Your task to perform on an android device: Open Google Chrome and click the shortcut for Amazon.com Image 0: 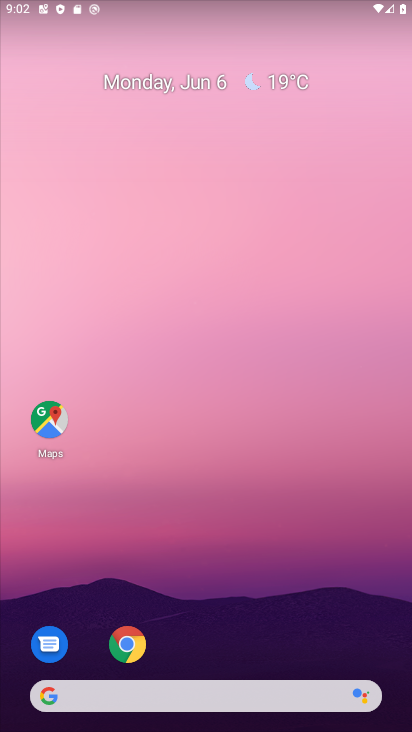
Step 0: click (118, 655)
Your task to perform on an android device: Open Google Chrome and click the shortcut for Amazon.com Image 1: 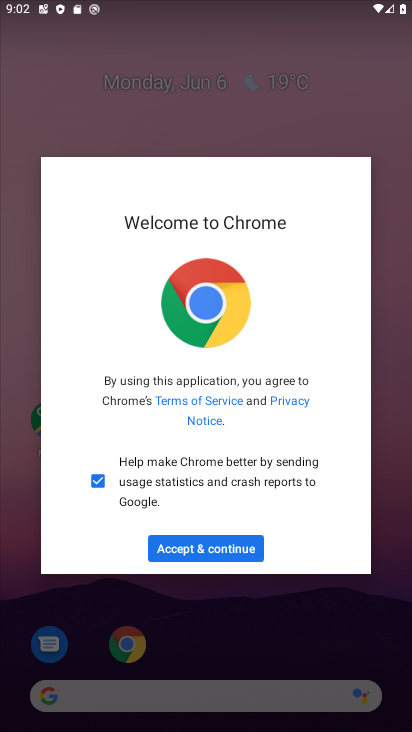
Step 1: click (198, 566)
Your task to perform on an android device: Open Google Chrome and click the shortcut for Amazon.com Image 2: 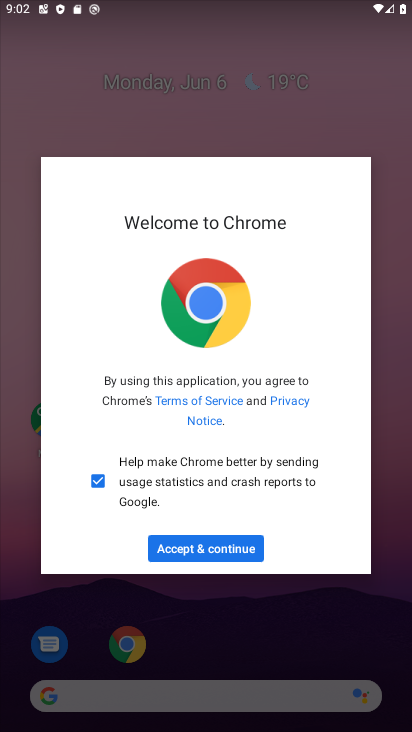
Step 2: click (224, 552)
Your task to perform on an android device: Open Google Chrome and click the shortcut for Amazon.com Image 3: 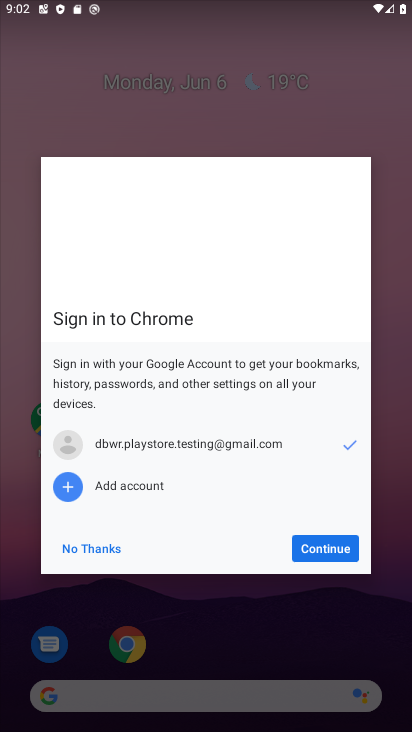
Step 3: click (302, 550)
Your task to perform on an android device: Open Google Chrome and click the shortcut for Amazon.com Image 4: 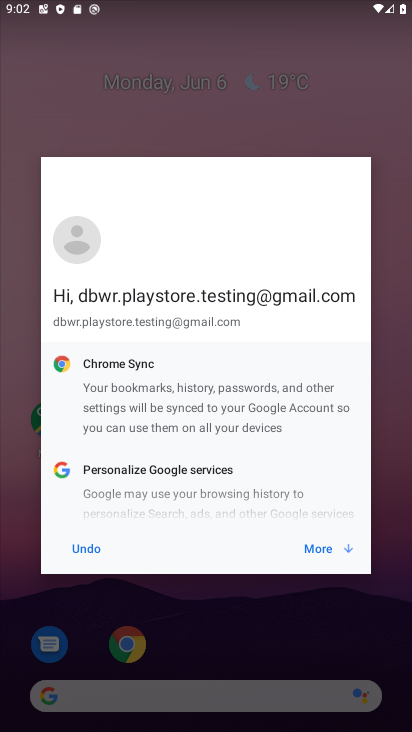
Step 4: click (315, 550)
Your task to perform on an android device: Open Google Chrome and click the shortcut for Amazon.com Image 5: 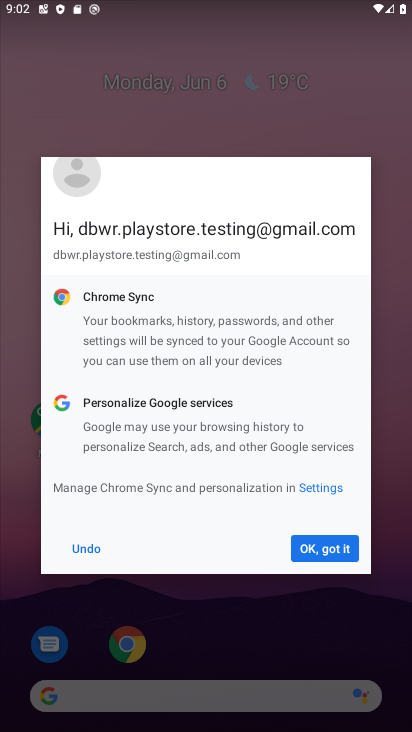
Step 5: click (317, 552)
Your task to perform on an android device: Open Google Chrome and click the shortcut for Amazon.com Image 6: 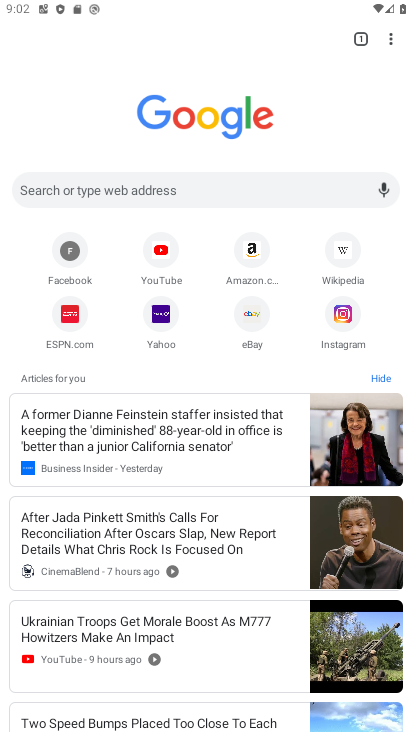
Step 6: click (255, 249)
Your task to perform on an android device: Open Google Chrome and click the shortcut for Amazon.com Image 7: 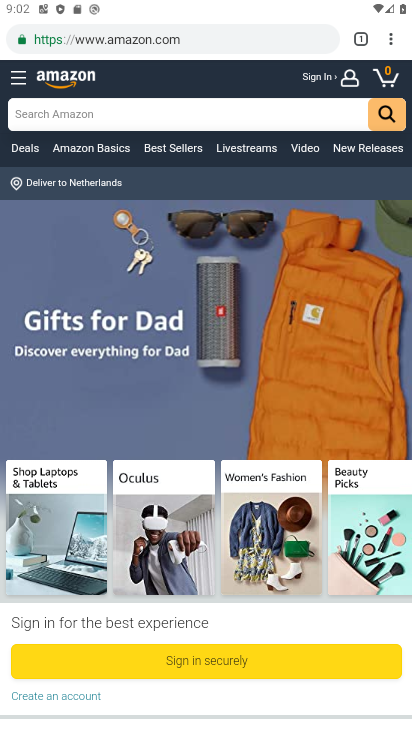
Step 7: task complete